Your task to perform on an android device: View the shopping cart on amazon.com. Add apple airpods to the cart on amazon.com Image 0: 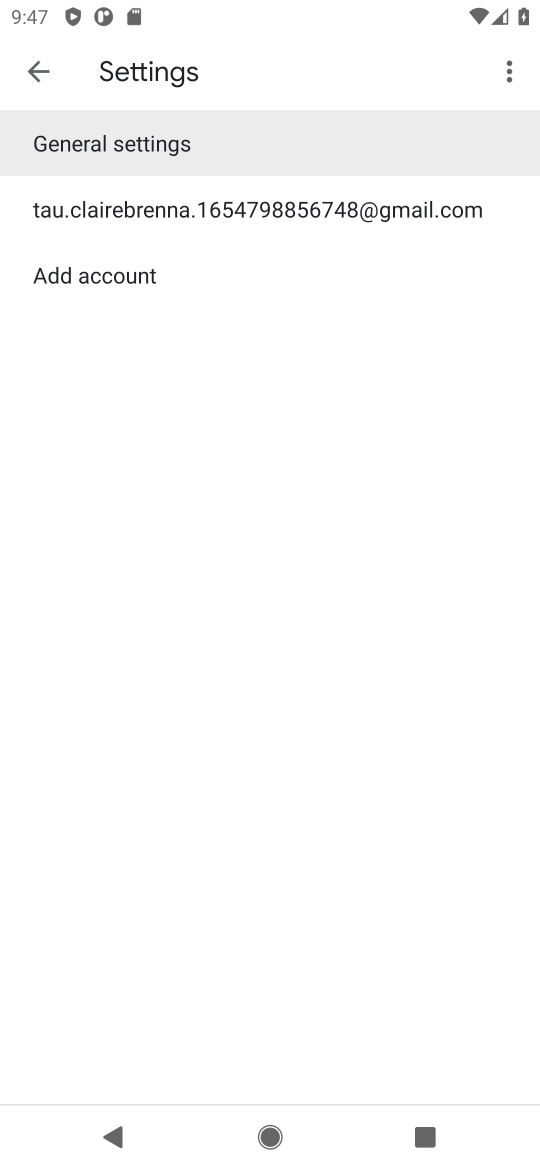
Step 0: press home button
Your task to perform on an android device: View the shopping cart on amazon.com. Add apple airpods to the cart on amazon.com Image 1: 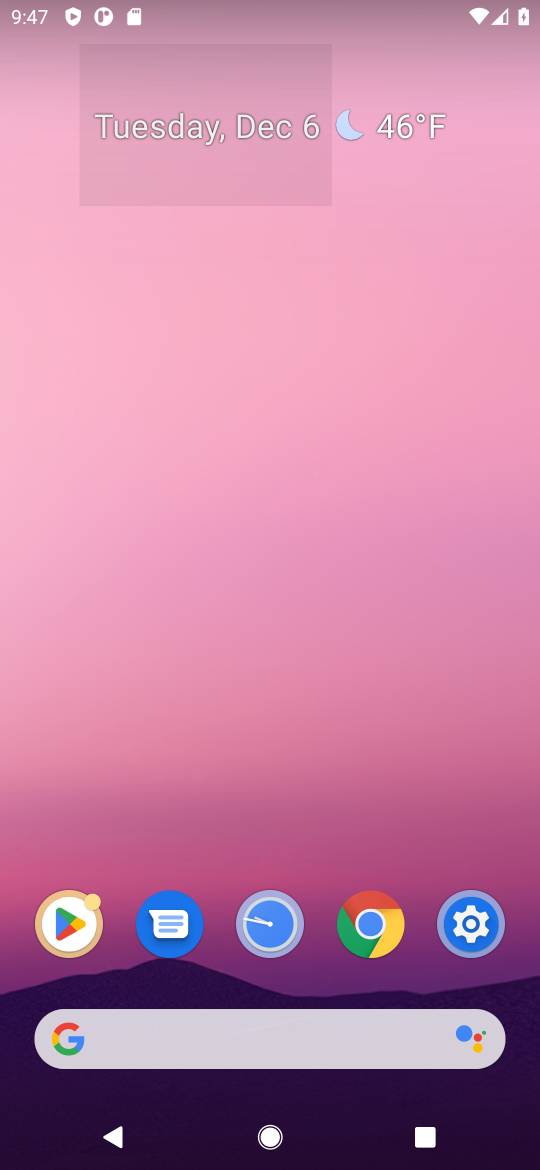
Step 1: click (312, 1065)
Your task to perform on an android device: View the shopping cart on amazon.com. Add apple airpods to the cart on amazon.com Image 2: 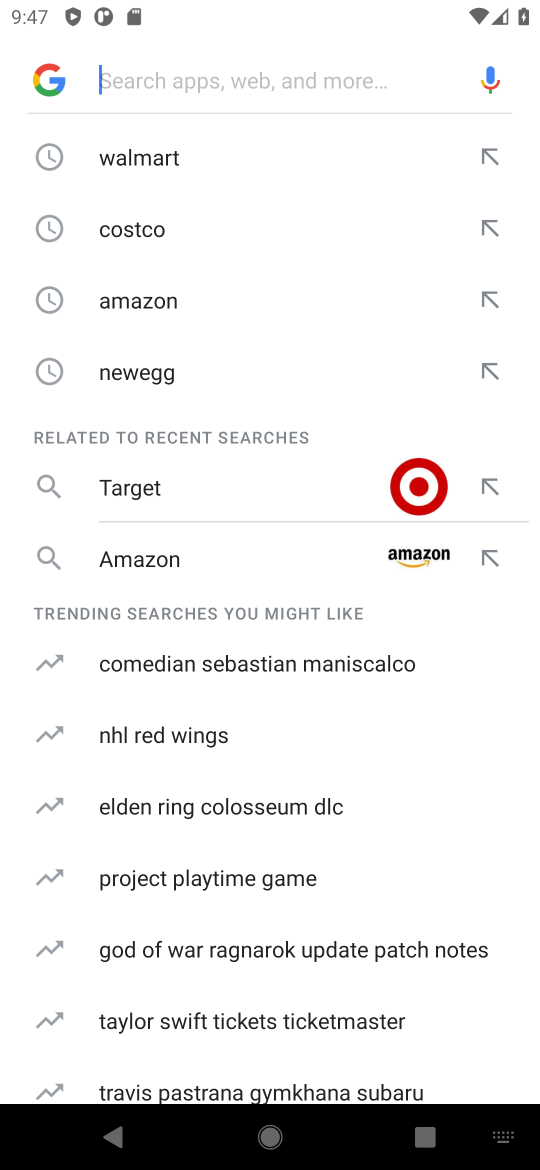
Step 2: type "apple airpod"
Your task to perform on an android device: View the shopping cart on amazon.com. Add apple airpods to the cart on amazon.com Image 3: 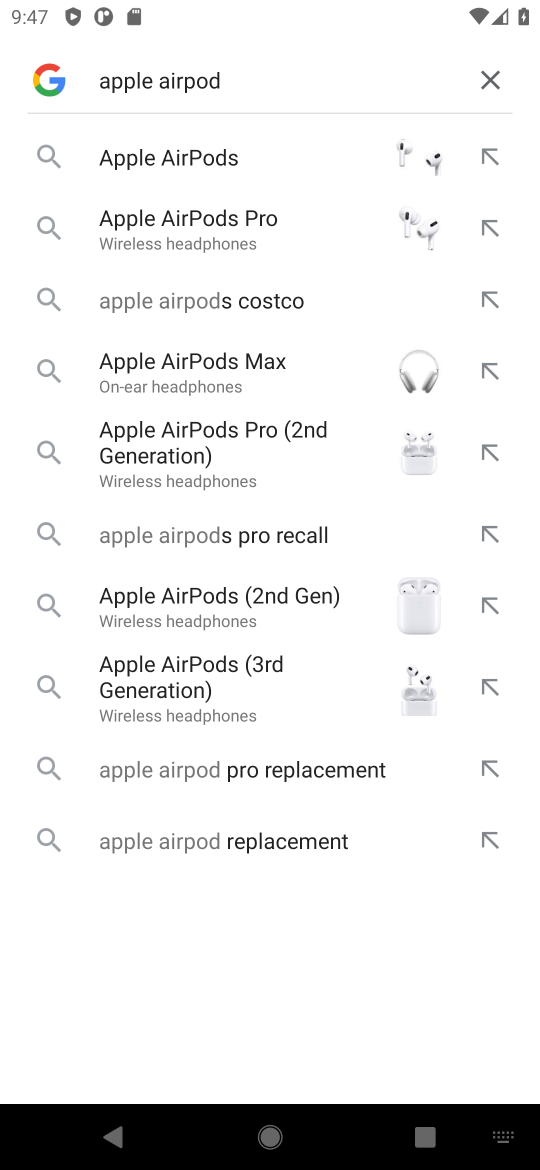
Step 3: click (205, 163)
Your task to perform on an android device: View the shopping cart on amazon.com. Add apple airpods to the cart on amazon.com Image 4: 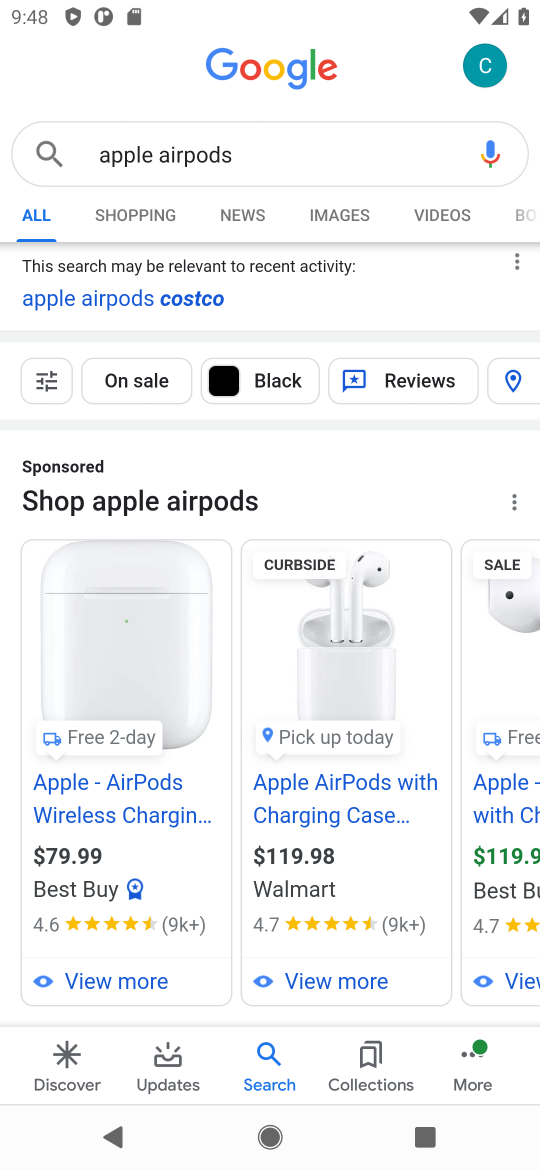
Step 4: task complete